Your task to perform on an android device: Search for vegetarian restaurants on Maps Image 0: 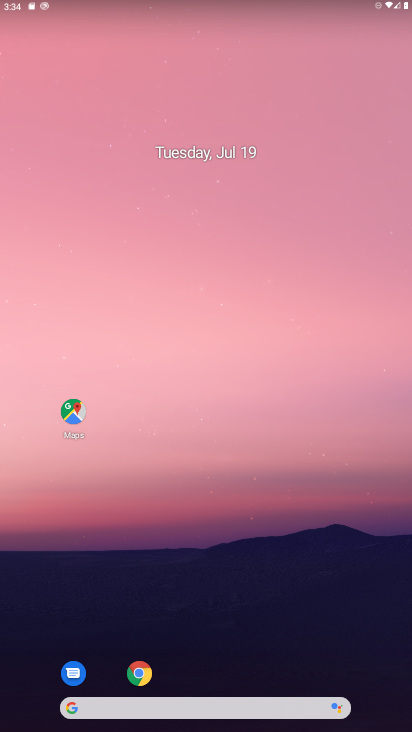
Step 0: click (74, 422)
Your task to perform on an android device: Search for vegetarian restaurants on Maps Image 1: 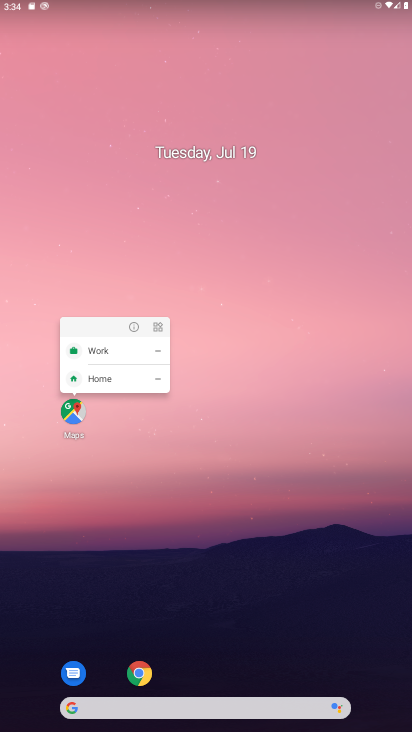
Step 1: click (74, 427)
Your task to perform on an android device: Search for vegetarian restaurants on Maps Image 2: 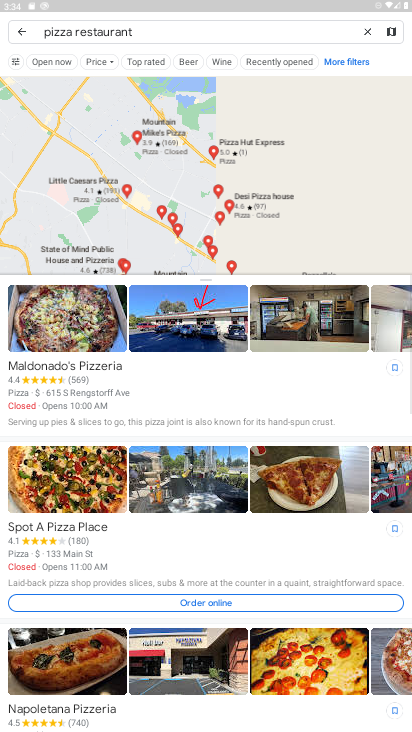
Step 2: click (45, 30)
Your task to perform on an android device: Search for vegetarian restaurants on Maps Image 3: 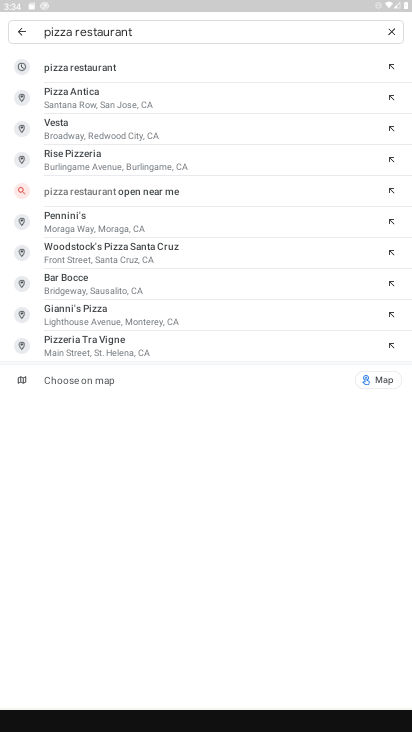
Step 3: click (58, 31)
Your task to perform on an android device: Search for vegetarian restaurants on Maps Image 4: 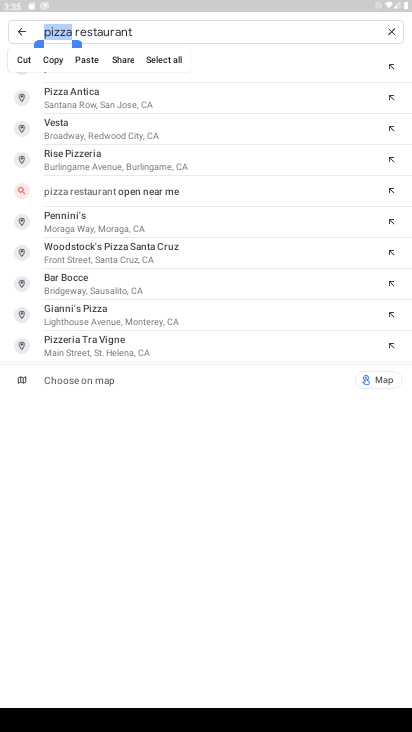
Step 4: type "Vegetarian"
Your task to perform on an android device: Search for vegetarian restaurants on Maps Image 5: 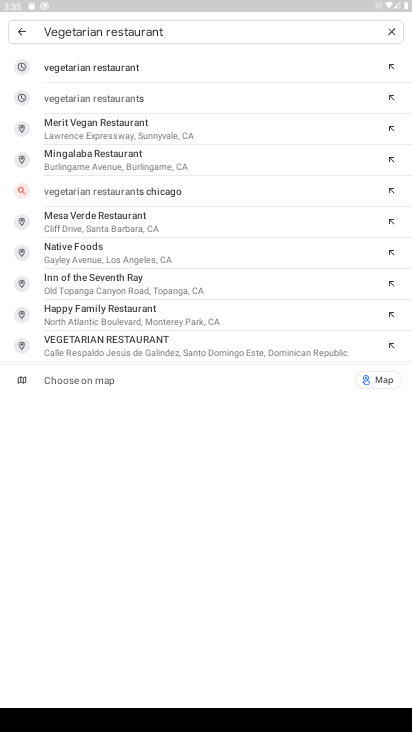
Step 5: click (108, 71)
Your task to perform on an android device: Search for vegetarian restaurants on Maps Image 6: 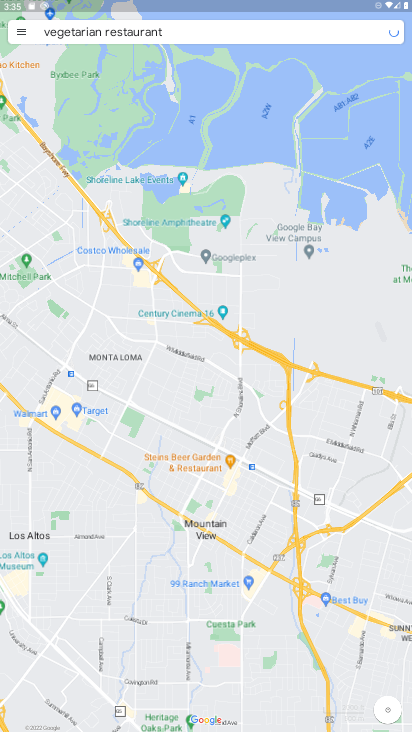
Step 6: task complete